Your task to perform on an android device: turn on showing notifications on the lock screen Image 0: 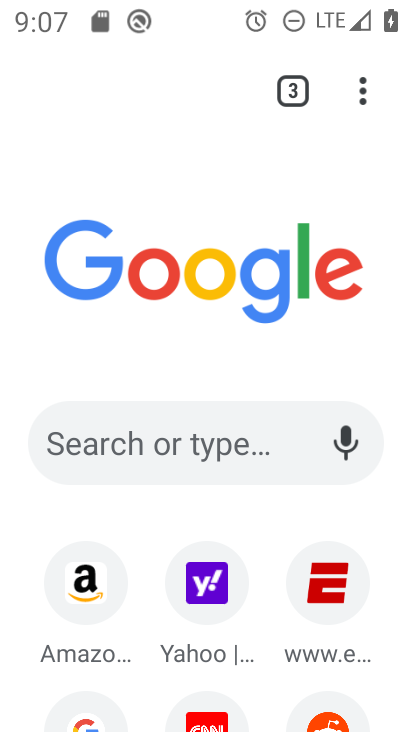
Step 0: press home button
Your task to perform on an android device: turn on showing notifications on the lock screen Image 1: 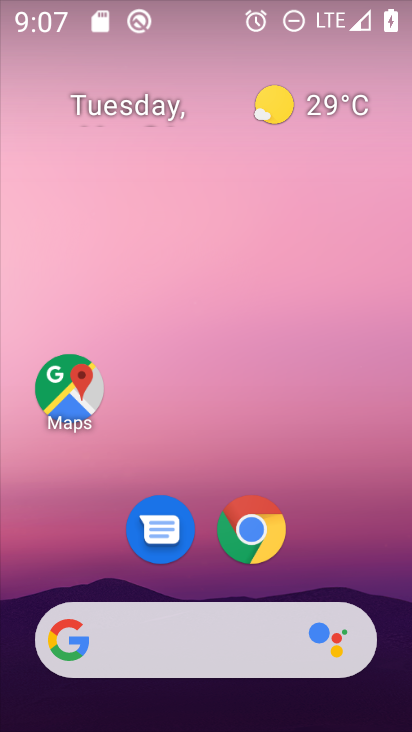
Step 1: drag from (383, 656) to (229, 55)
Your task to perform on an android device: turn on showing notifications on the lock screen Image 2: 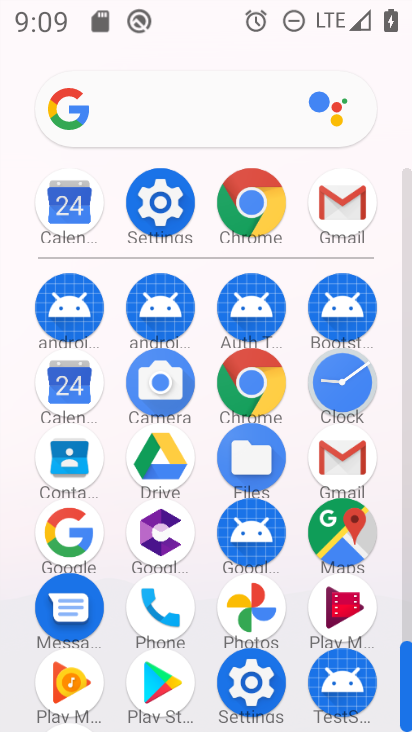
Step 2: click (168, 196)
Your task to perform on an android device: turn on showing notifications on the lock screen Image 3: 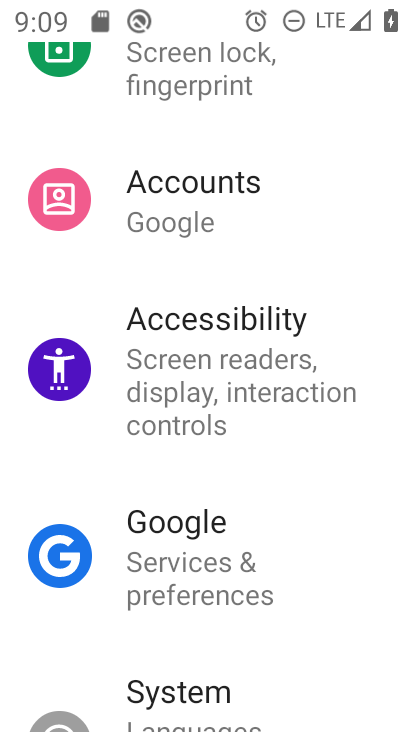
Step 3: drag from (246, 198) to (259, 614)
Your task to perform on an android device: turn on showing notifications on the lock screen Image 4: 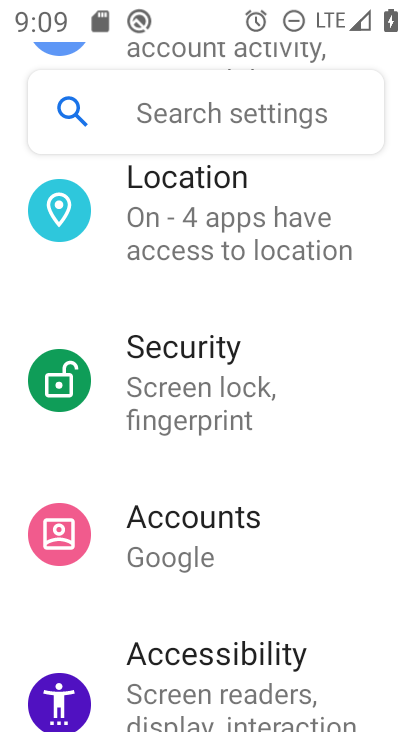
Step 4: drag from (230, 229) to (253, 648)
Your task to perform on an android device: turn on showing notifications on the lock screen Image 5: 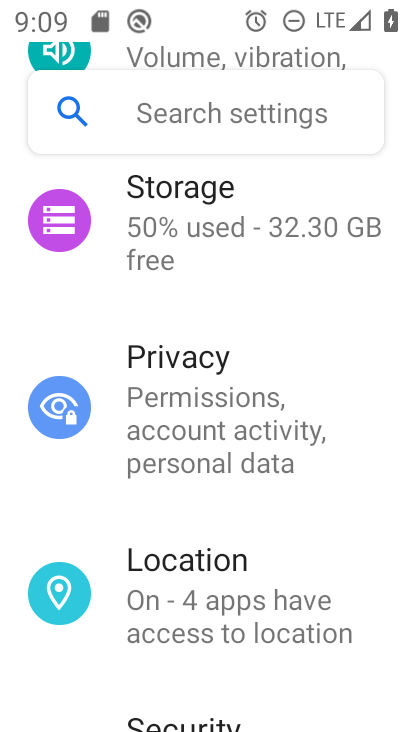
Step 5: drag from (202, 227) to (198, 552)
Your task to perform on an android device: turn on showing notifications on the lock screen Image 6: 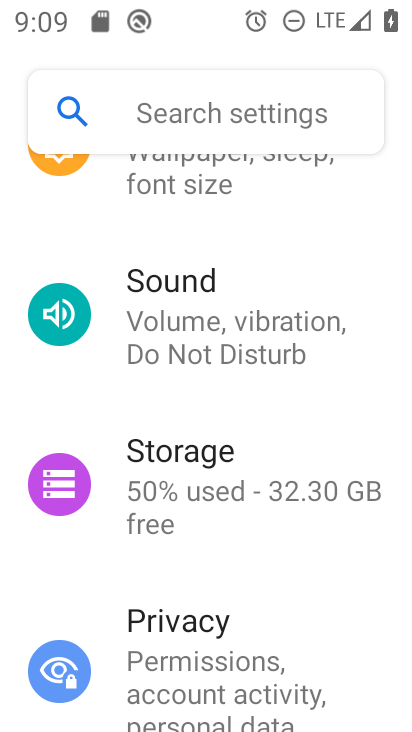
Step 6: drag from (206, 200) to (204, 592)
Your task to perform on an android device: turn on showing notifications on the lock screen Image 7: 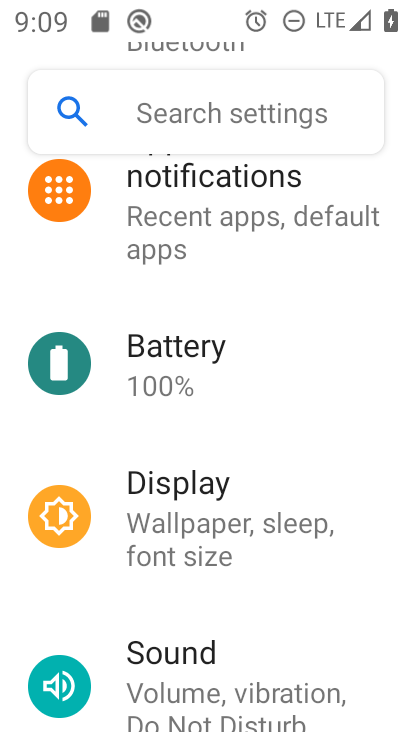
Step 7: click (167, 136)
Your task to perform on an android device: turn on showing notifications on the lock screen Image 8: 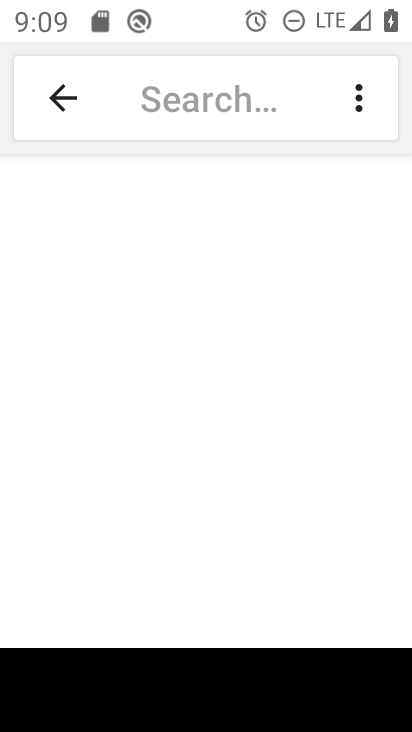
Step 8: press back button
Your task to perform on an android device: turn on showing notifications on the lock screen Image 9: 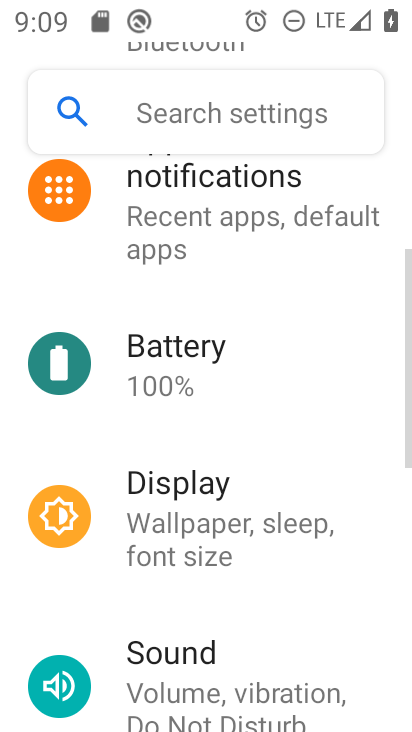
Step 9: click (225, 225)
Your task to perform on an android device: turn on showing notifications on the lock screen Image 10: 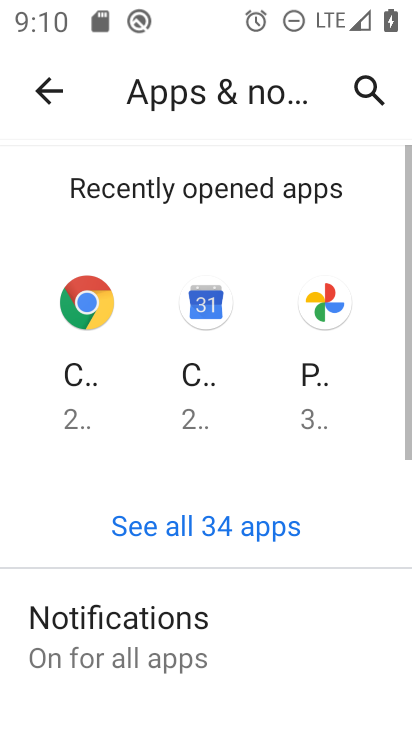
Step 10: click (228, 632)
Your task to perform on an android device: turn on showing notifications on the lock screen Image 11: 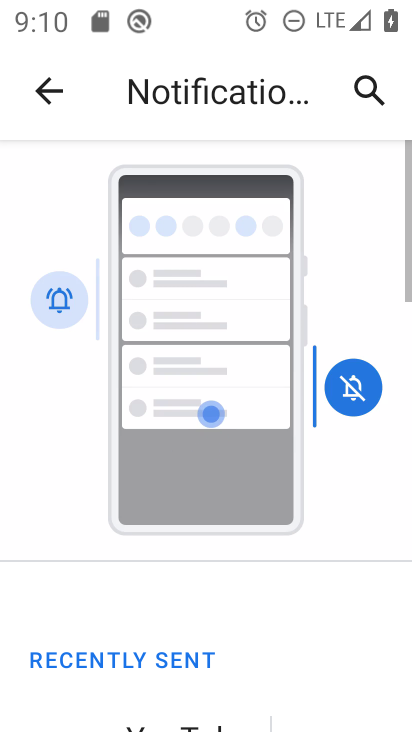
Step 11: drag from (209, 664) to (251, 48)
Your task to perform on an android device: turn on showing notifications on the lock screen Image 12: 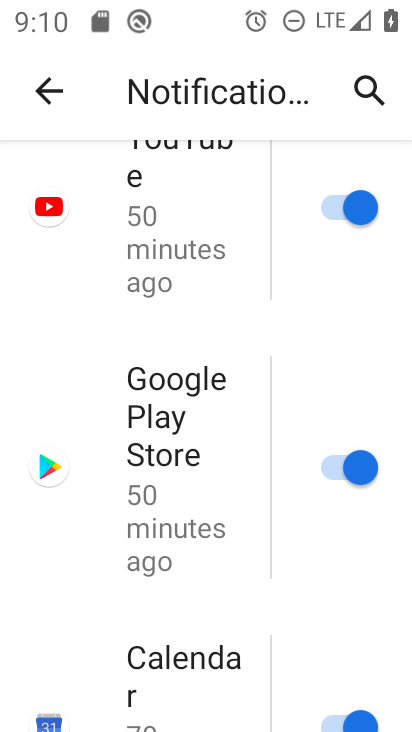
Step 12: drag from (197, 643) to (216, 159)
Your task to perform on an android device: turn on showing notifications on the lock screen Image 13: 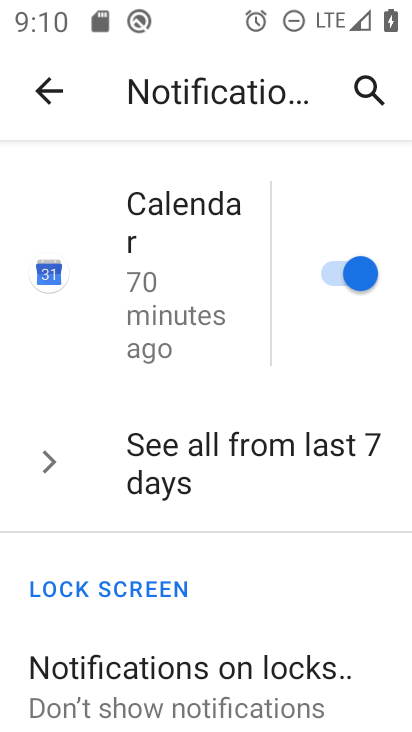
Step 13: click (231, 700)
Your task to perform on an android device: turn on showing notifications on the lock screen Image 14: 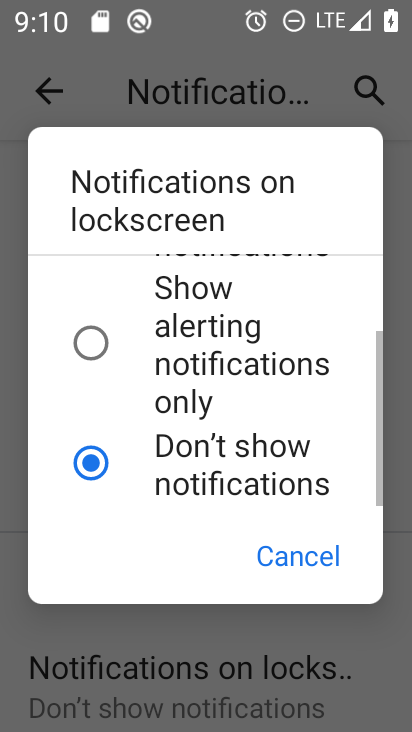
Step 14: drag from (115, 280) to (153, 526)
Your task to perform on an android device: turn on showing notifications on the lock screen Image 15: 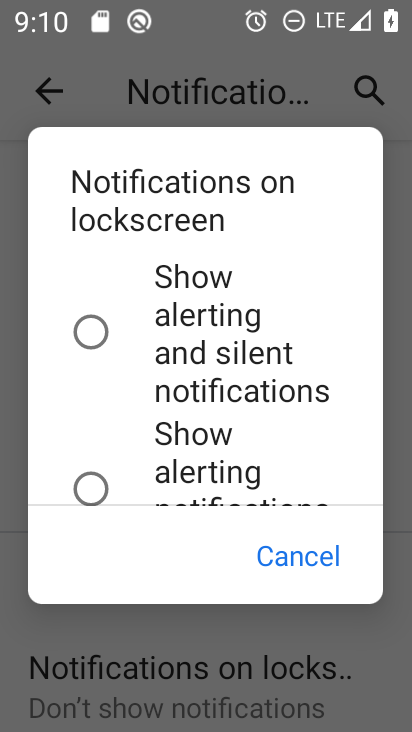
Step 15: click (66, 328)
Your task to perform on an android device: turn on showing notifications on the lock screen Image 16: 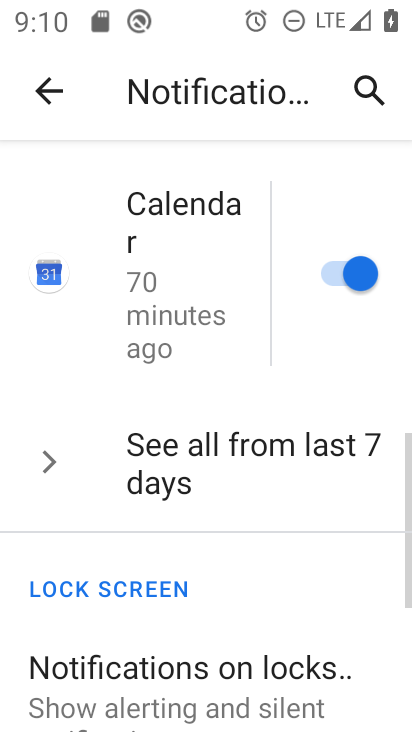
Step 16: task complete